Your task to perform on an android device: toggle data saver in the chrome app Image 0: 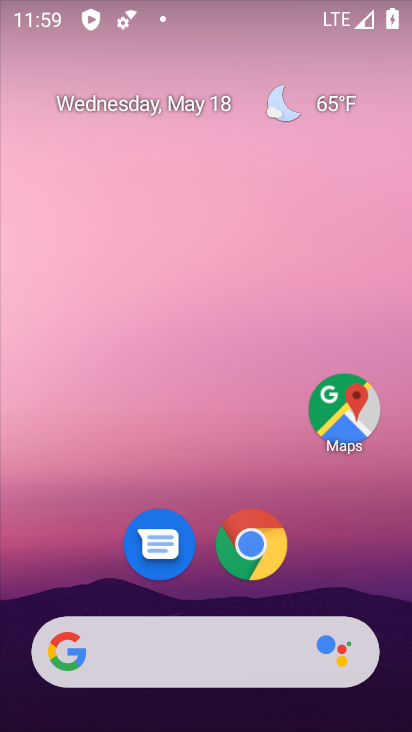
Step 0: drag from (375, 586) to (384, 177)
Your task to perform on an android device: toggle data saver in the chrome app Image 1: 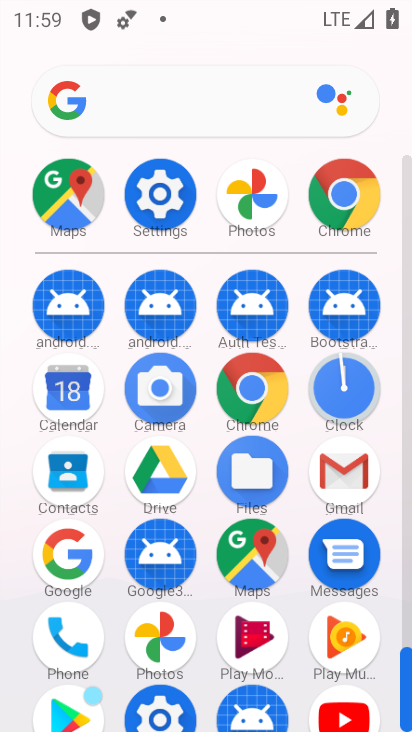
Step 1: click (268, 389)
Your task to perform on an android device: toggle data saver in the chrome app Image 2: 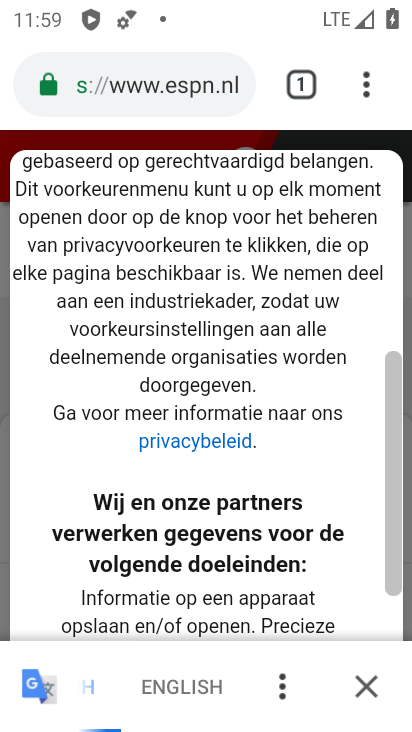
Step 2: click (371, 89)
Your task to perform on an android device: toggle data saver in the chrome app Image 3: 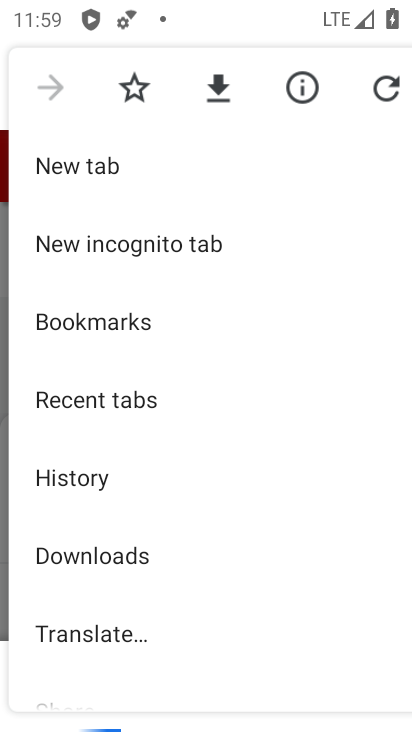
Step 3: drag from (293, 545) to (283, 355)
Your task to perform on an android device: toggle data saver in the chrome app Image 4: 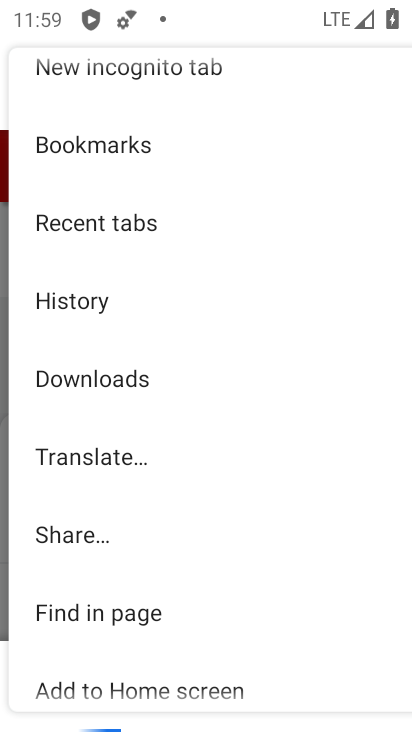
Step 4: drag from (292, 502) to (286, 363)
Your task to perform on an android device: toggle data saver in the chrome app Image 5: 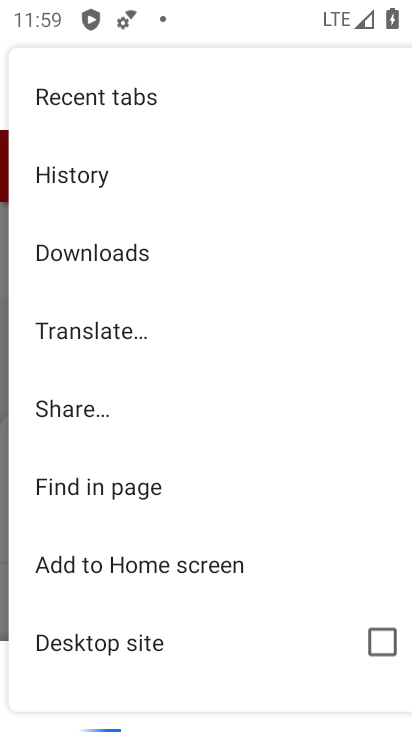
Step 5: drag from (291, 583) to (302, 548)
Your task to perform on an android device: toggle data saver in the chrome app Image 6: 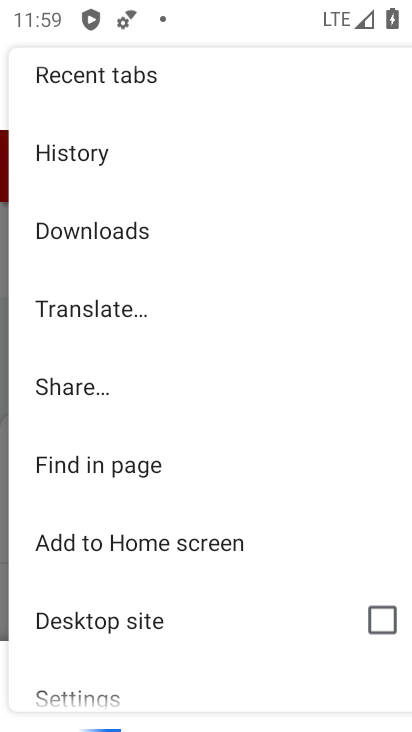
Step 6: drag from (321, 642) to (325, 508)
Your task to perform on an android device: toggle data saver in the chrome app Image 7: 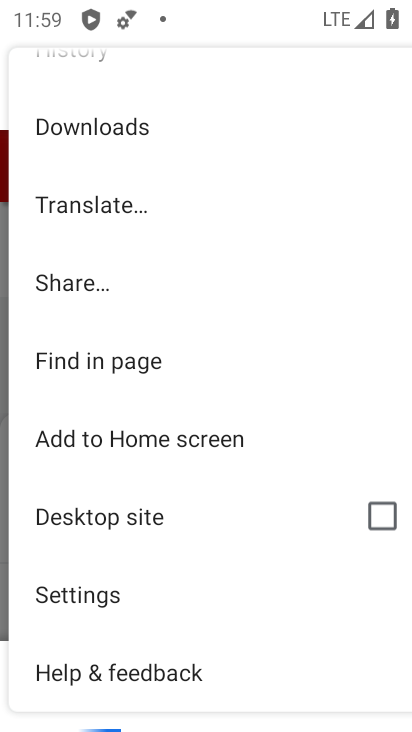
Step 7: drag from (300, 612) to (303, 491)
Your task to perform on an android device: toggle data saver in the chrome app Image 8: 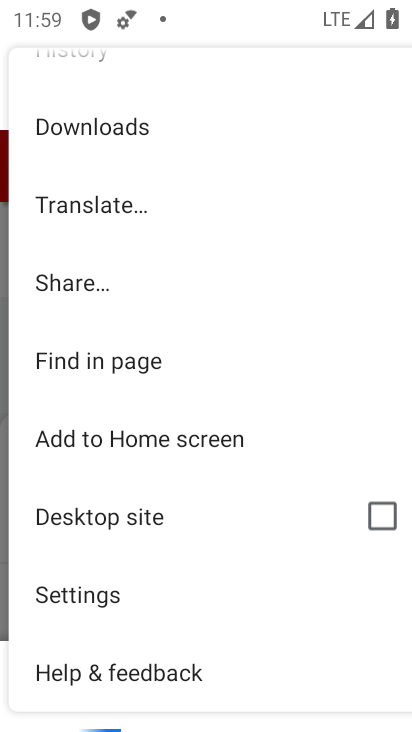
Step 8: click (138, 596)
Your task to perform on an android device: toggle data saver in the chrome app Image 9: 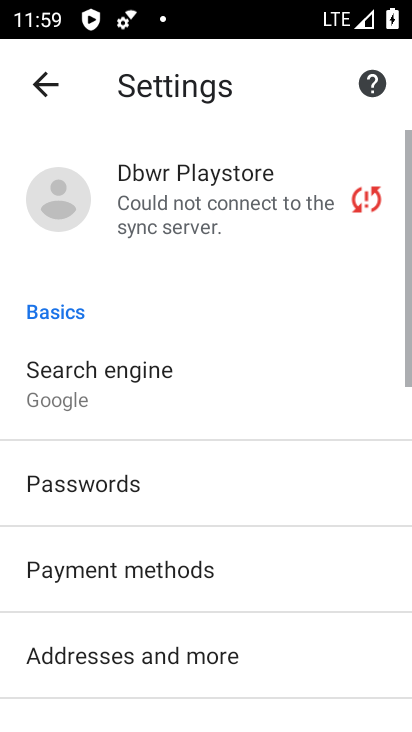
Step 9: drag from (253, 601) to (270, 494)
Your task to perform on an android device: toggle data saver in the chrome app Image 10: 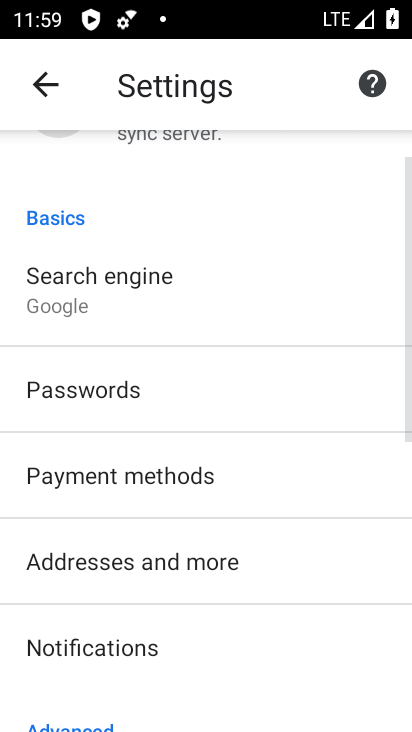
Step 10: drag from (281, 649) to (287, 520)
Your task to perform on an android device: toggle data saver in the chrome app Image 11: 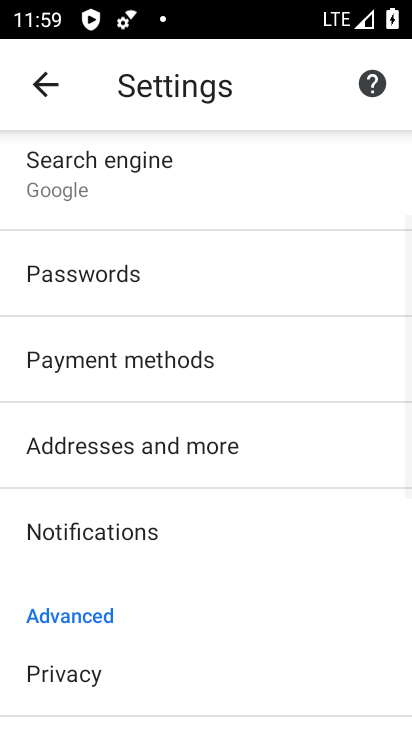
Step 11: drag from (299, 647) to (307, 459)
Your task to perform on an android device: toggle data saver in the chrome app Image 12: 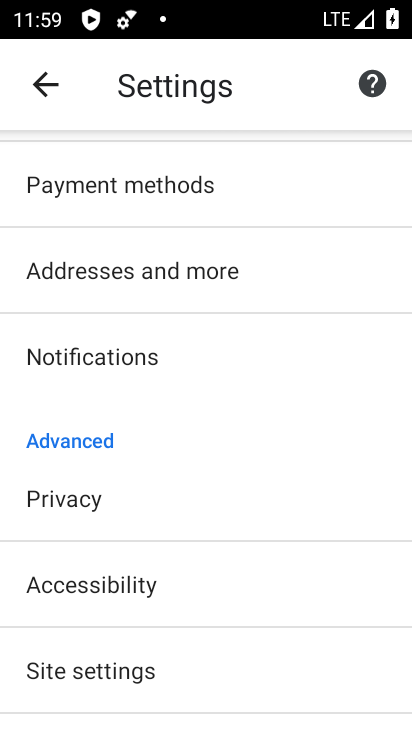
Step 12: drag from (281, 644) to (293, 488)
Your task to perform on an android device: toggle data saver in the chrome app Image 13: 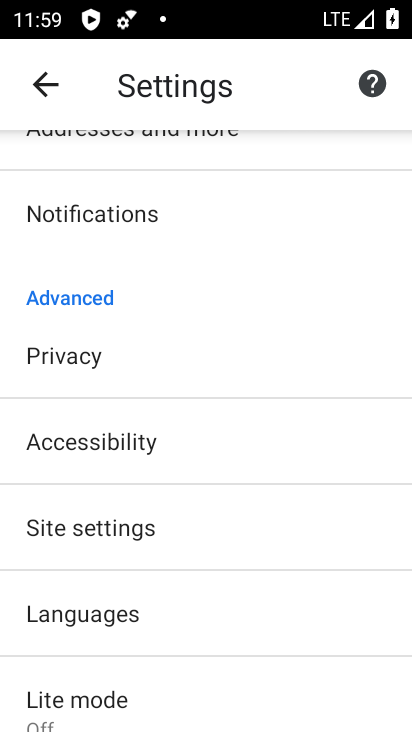
Step 13: drag from (275, 631) to (282, 497)
Your task to perform on an android device: toggle data saver in the chrome app Image 14: 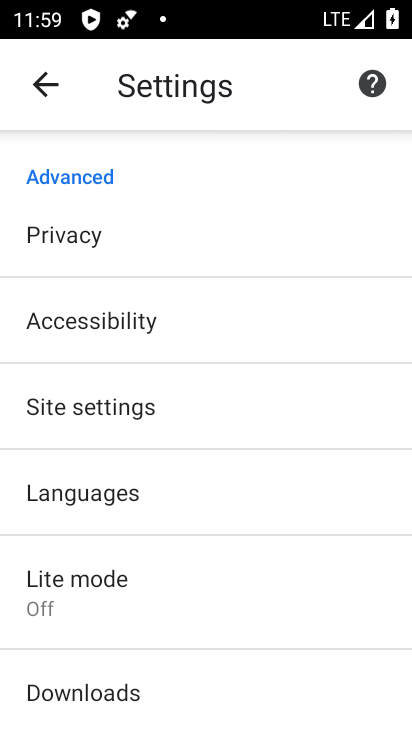
Step 14: drag from (243, 629) to (250, 521)
Your task to perform on an android device: toggle data saver in the chrome app Image 15: 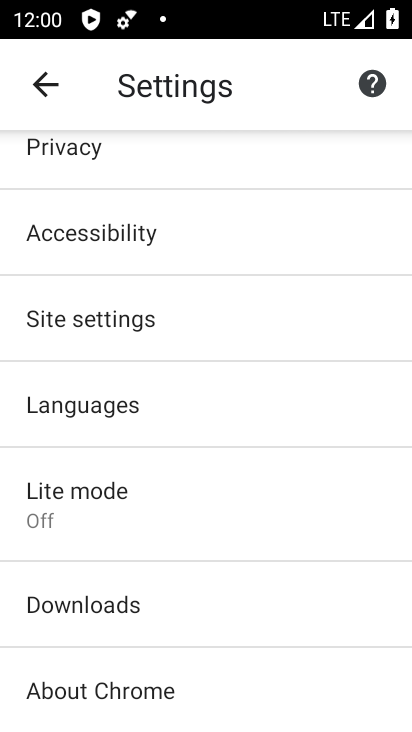
Step 15: click (226, 518)
Your task to perform on an android device: toggle data saver in the chrome app Image 16: 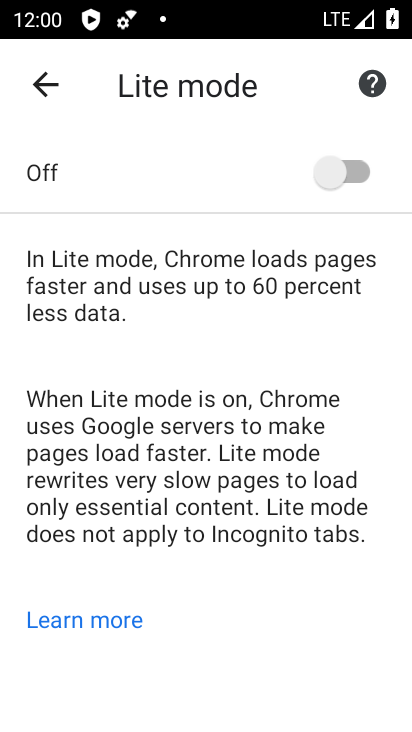
Step 16: click (375, 157)
Your task to perform on an android device: toggle data saver in the chrome app Image 17: 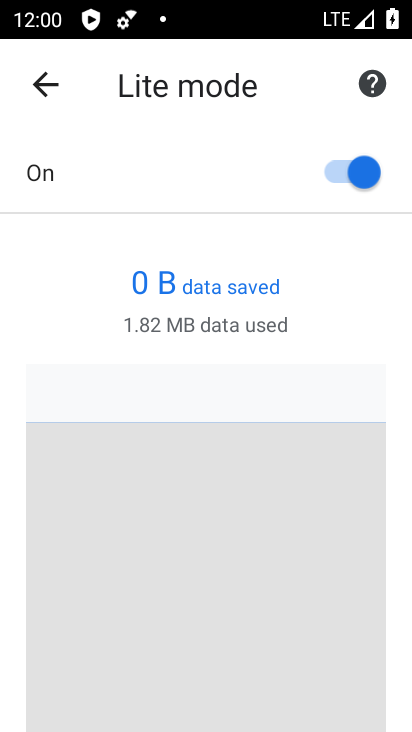
Step 17: task complete